Your task to perform on an android device: open a bookmark in the chrome app Image 0: 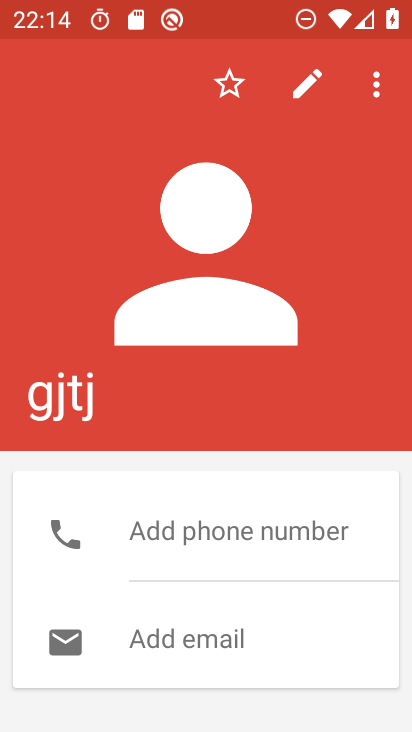
Step 0: press home button
Your task to perform on an android device: open a bookmark in the chrome app Image 1: 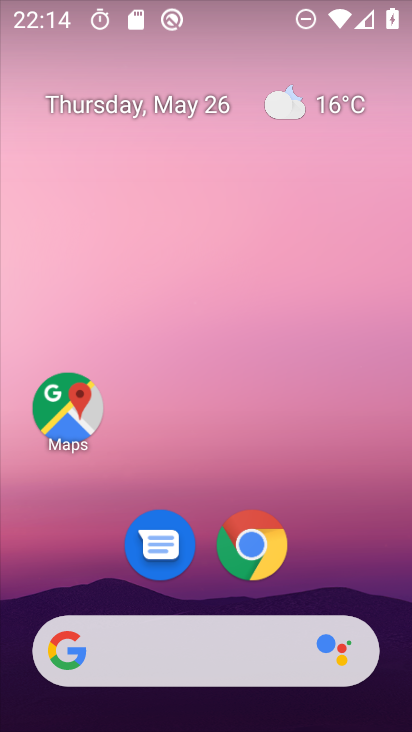
Step 1: click (250, 548)
Your task to perform on an android device: open a bookmark in the chrome app Image 2: 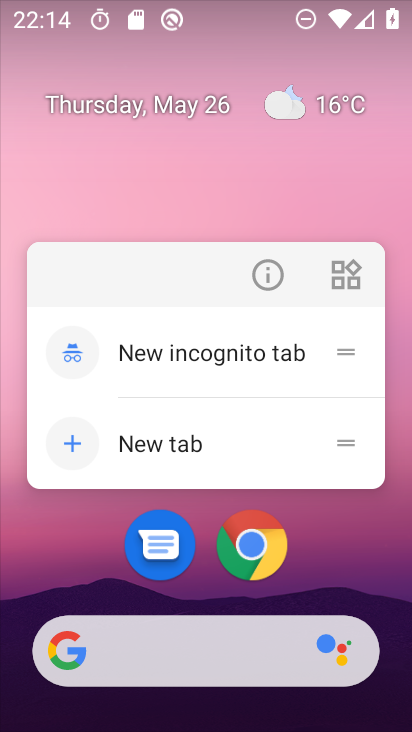
Step 2: click (257, 553)
Your task to perform on an android device: open a bookmark in the chrome app Image 3: 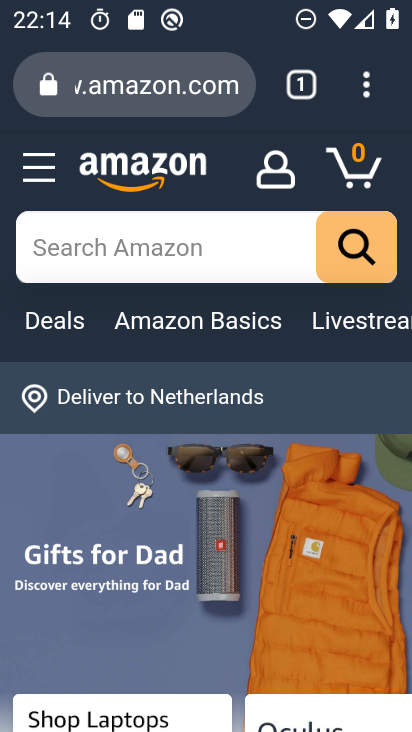
Step 3: click (357, 84)
Your task to perform on an android device: open a bookmark in the chrome app Image 4: 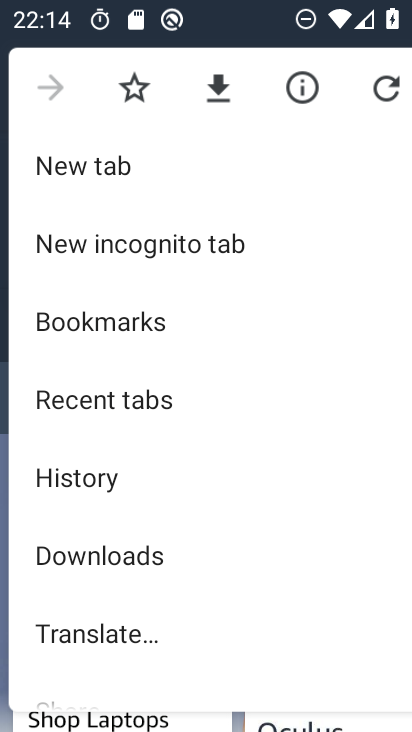
Step 4: click (111, 323)
Your task to perform on an android device: open a bookmark in the chrome app Image 5: 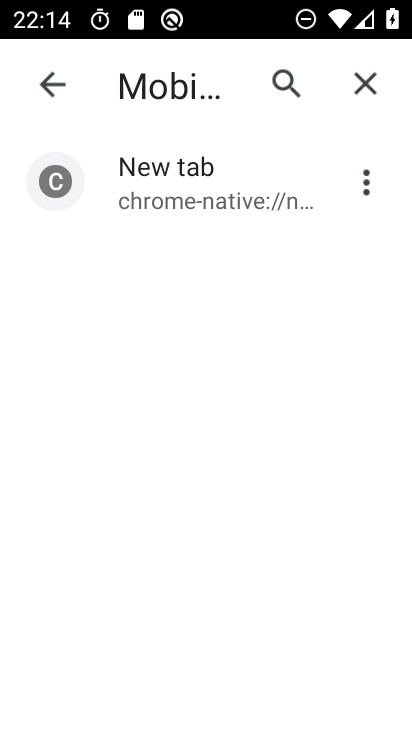
Step 5: click (191, 177)
Your task to perform on an android device: open a bookmark in the chrome app Image 6: 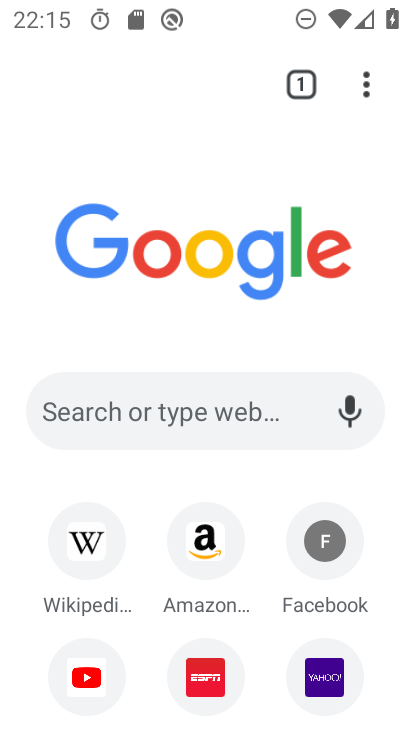
Step 6: task complete